Your task to perform on an android device: turn on airplane mode Image 0: 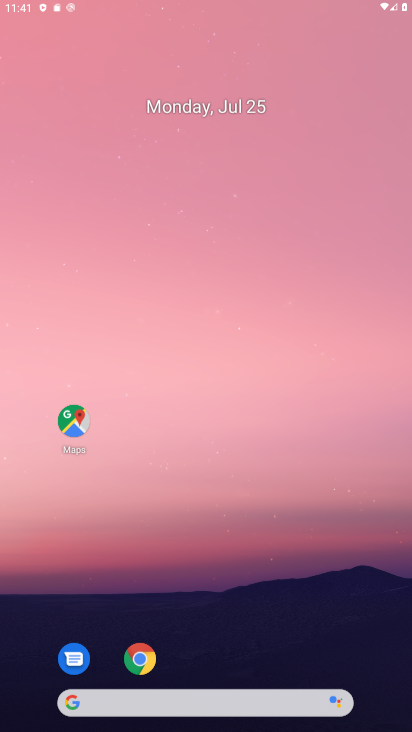
Step 0: press home button
Your task to perform on an android device: turn on airplane mode Image 1: 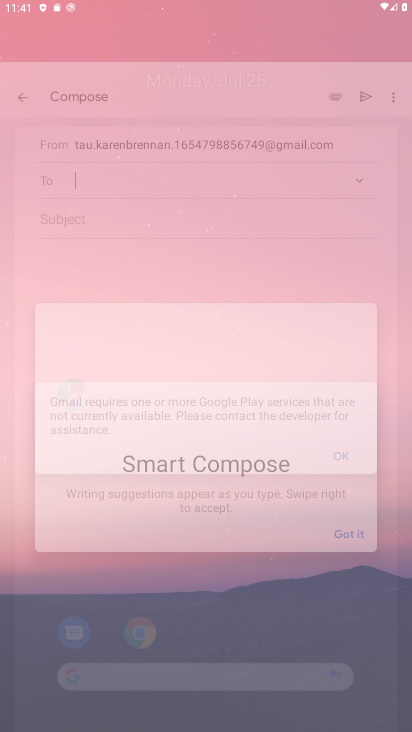
Step 1: click (248, 457)
Your task to perform on an android device: turn on airplane mode Image 2: 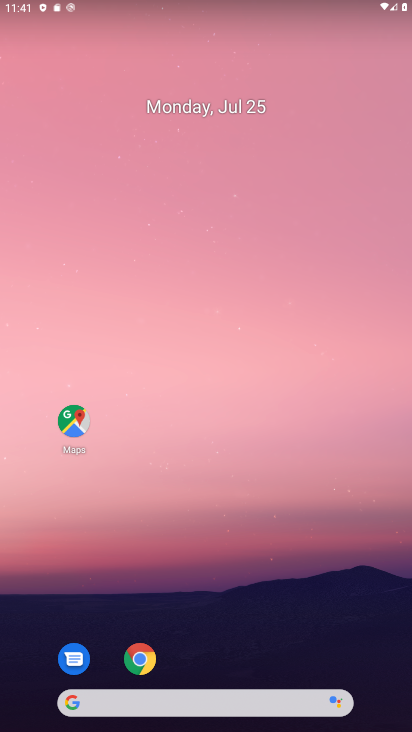
Step 2: drag from (392, 0) to (365, 562)
Your task to perform on an android device: turn on airplane mode Image 3: 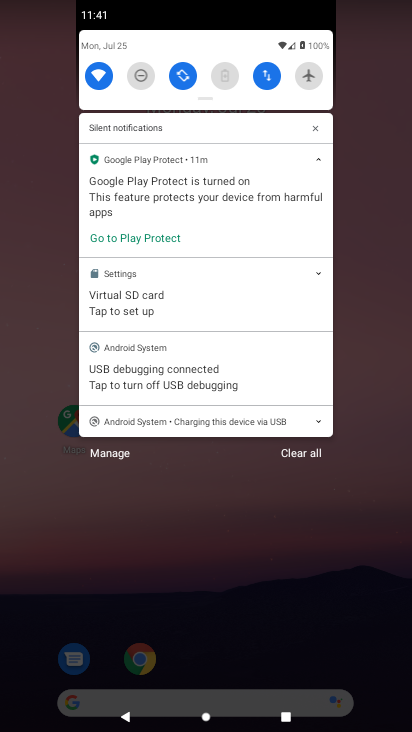
Step 3: click (312, 86)
Your task to perform on an android device: turn on airplane mode Image 4: 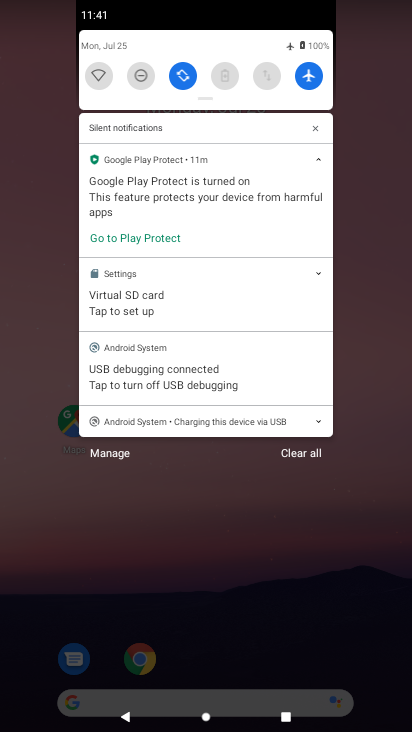
Step 4: task complete